Your task to perform on an android device: Show me the alarms in the clock app Image 0: 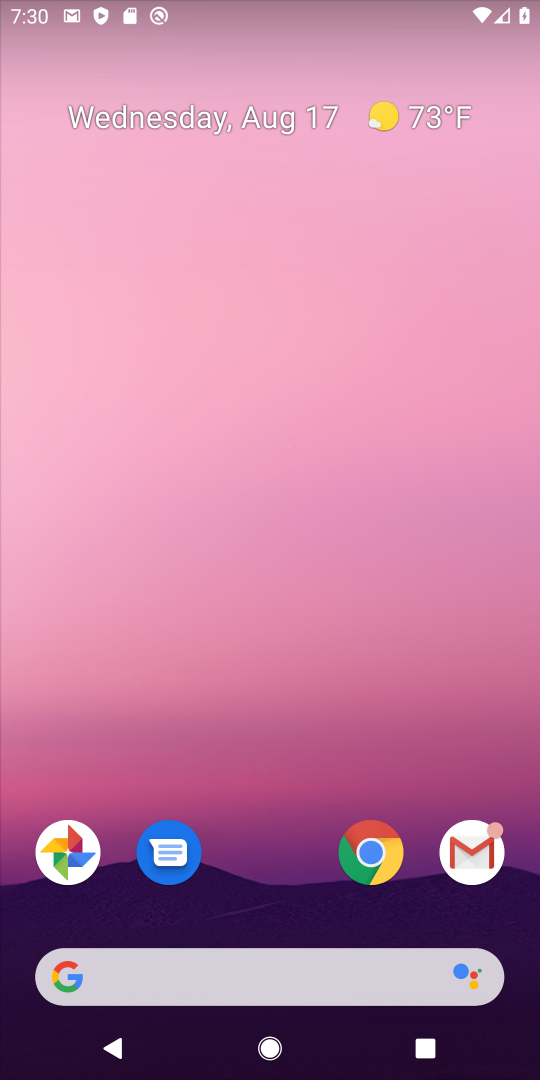
Step 0: drag from (259, 895) to (229, 177)
Your task to perform on an android device: Show me the alarms in the clock app Image 1: 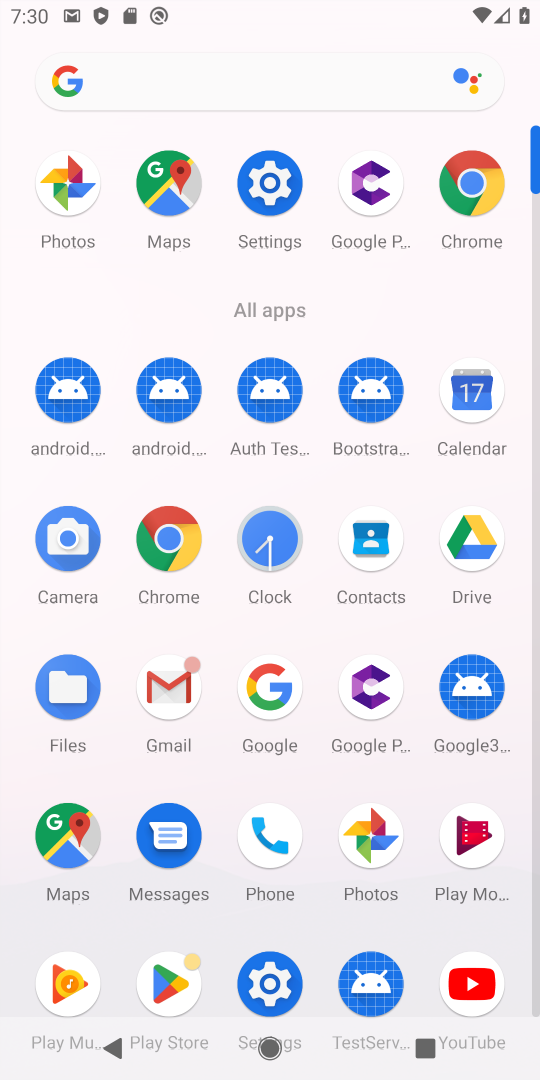
Step 1: click (273, 530)
Your task to perform on an android device: Show me the alarms in the clock app Image 2: 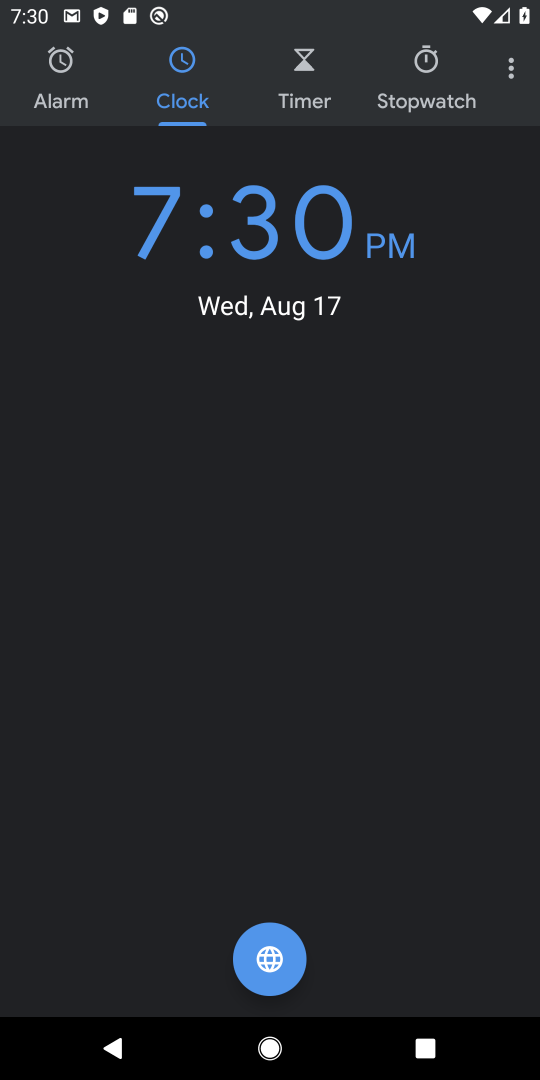
Step 2: click (50, 73)
Your task to perform on an android device: Show me the alarms in the clock app Image 3: 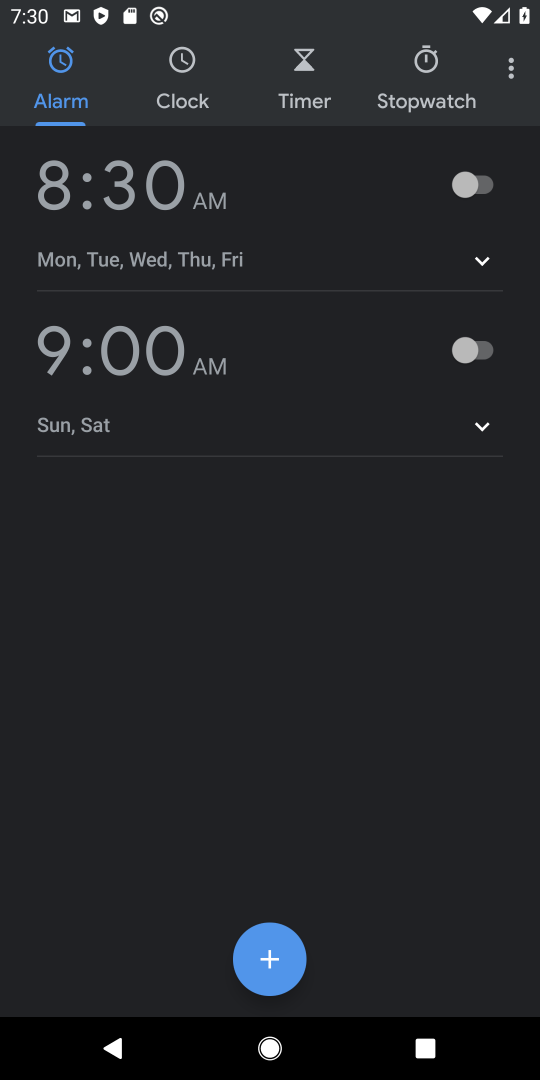
Step 3: task complete